Your task to perform on an android device: change the clock display to show seconds Image 0: 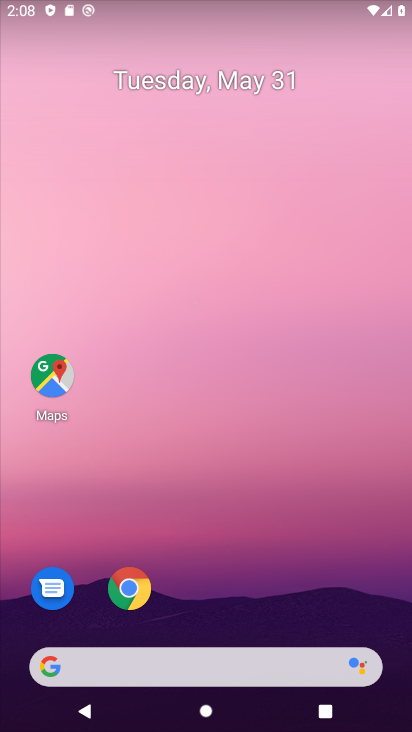
Step 0: drag from (134, 726) to (133, 1)
Your task to perform on an android device: change the clock display to show seconds Image 1: 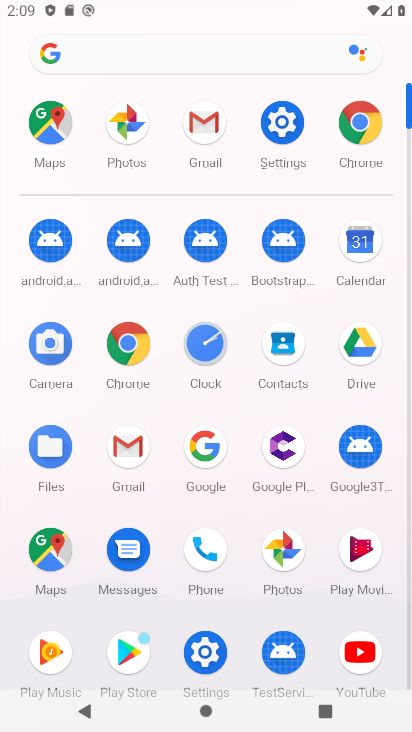
Step 1: click (217, 346)
Your task to perform on an android device: change the clock display to show seconds Image 2: 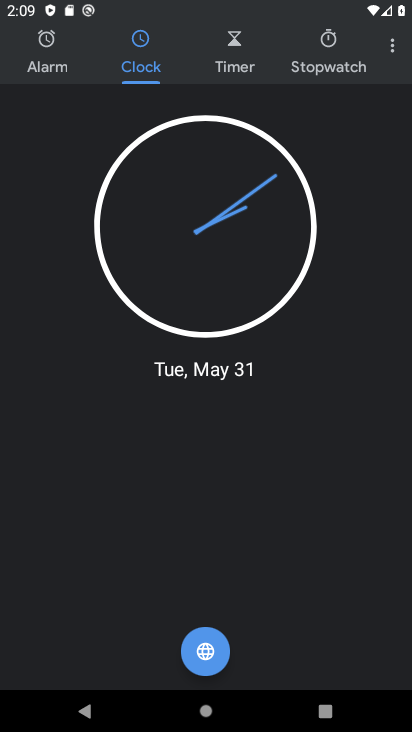
Step 2: click (388, 50)
Your task to perform on an android device: change the clock display to show seconds Image 3: 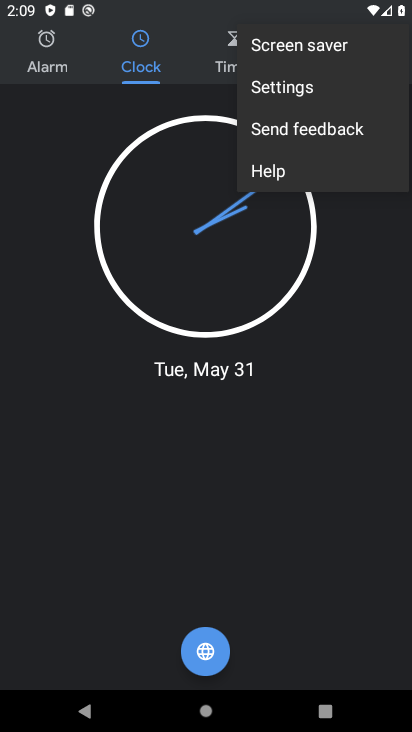
Step 3: click (265, 101)
Your task to perform on an android device: change the clock display to show seconds Image 4: 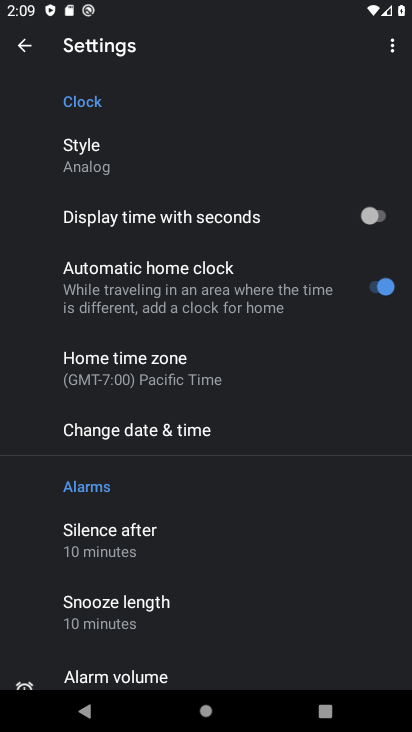
Step 4: click (378, 223)
Your task to perform on an android device: change the clock display to show seconds Image 5: 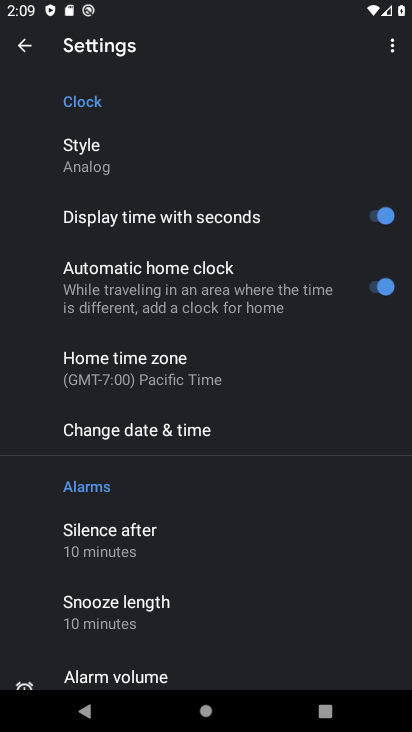
Step 5: task complete